Your task to perform on an android device: Go to location settings Image 0: 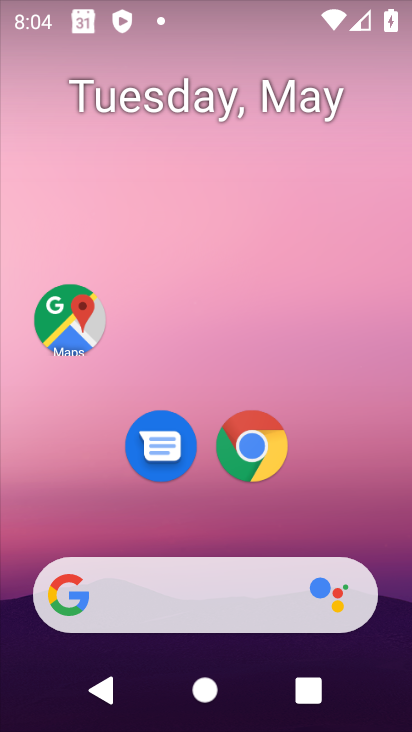
Step 0: drag from (366, 549) to (350, 9)
Your task to perform on an android device: Go to location settings Image 1: 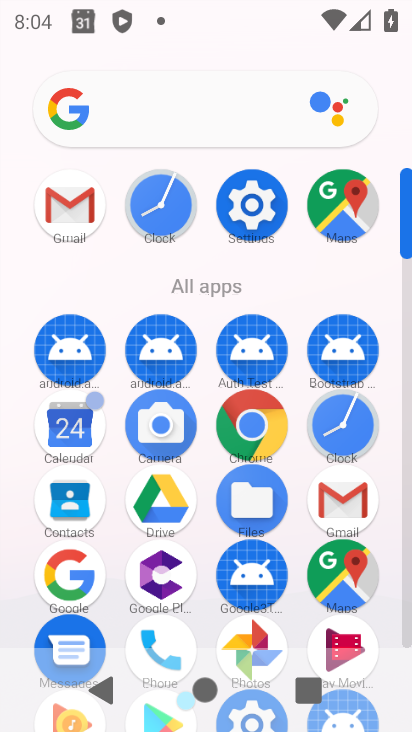
Step 1: click (259, 209)
Your task to perform on an android device: Go to location settings Image 2: 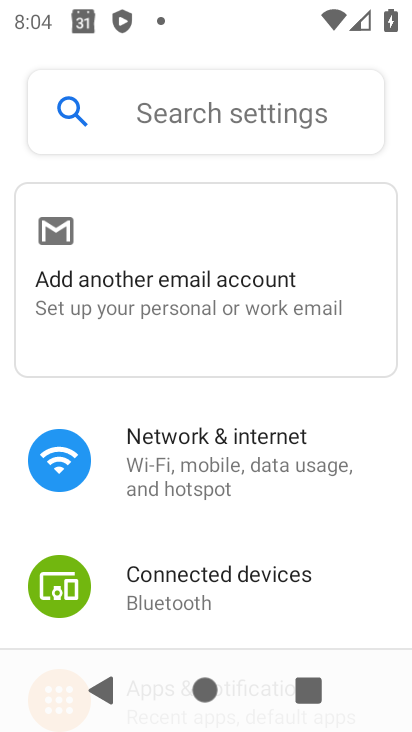
Step 2: drag from (343, 578) to (304, 205)
Your task to perform on an android device: Go to location settings Image 3: 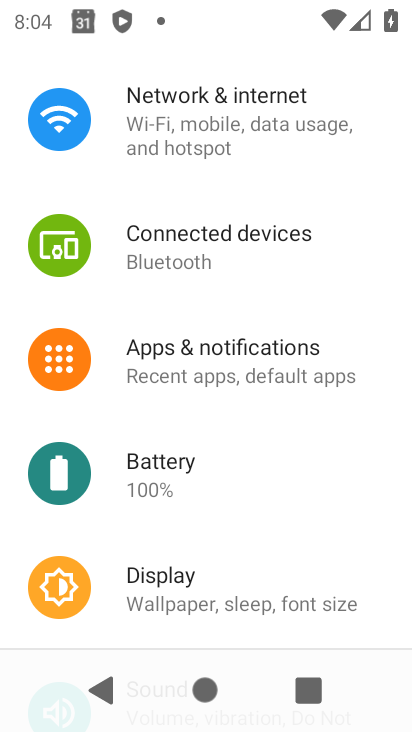
Step 3: drag from (317, 538) to (297, 153)
Your task to perform on an android device: Go to location settings Image 4: 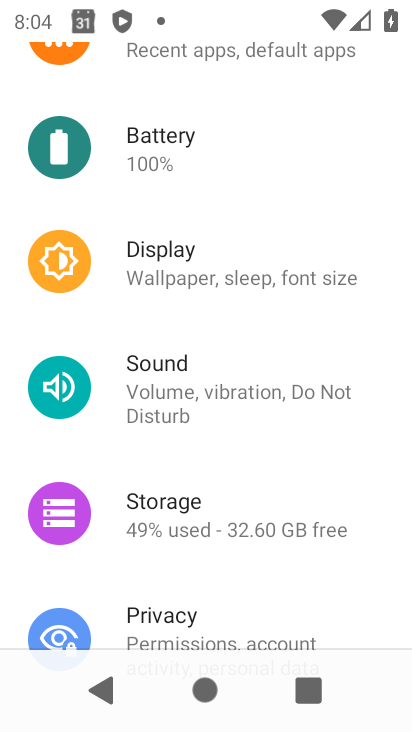
Step 4: drag from (276, 534) to (266, 198)
Your task to perform on an android device: Go to location settings Image 5: 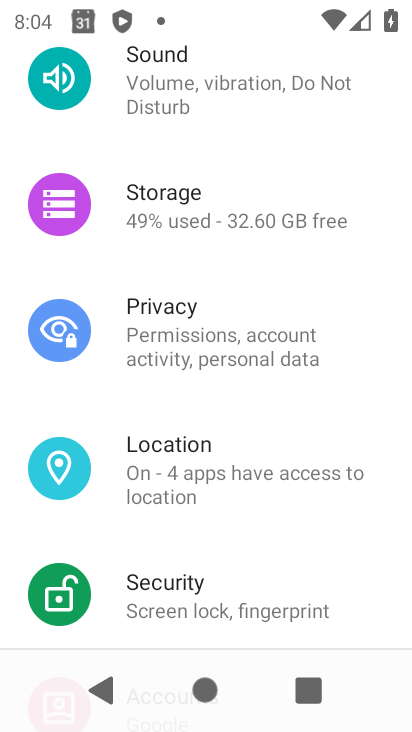
Step 5: click (199, 480)
Your task to perform on an android device: Go to location settings Image 6: 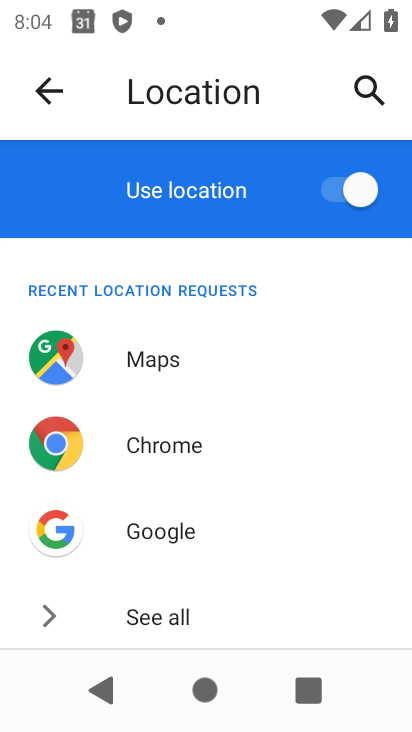
Step 6: task complete